Your task to perform on an android device: allow notifications from all sites in the chrome app Image 0: 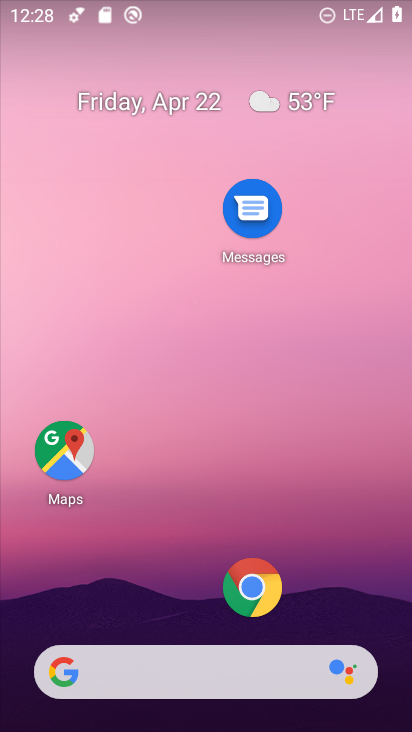
Step 0: drag from (192, 602) to (268, 205)
Your task to perform on an android device: allow notifications from all sites in the chrome app Image 1: 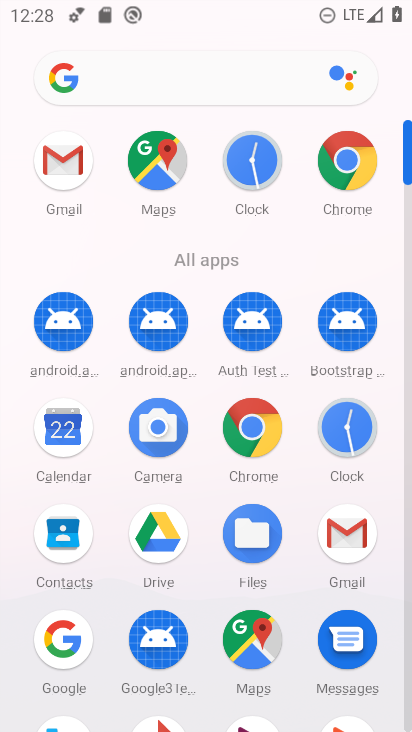
Step 1: click (350, 155)
Your task to perform on an android device: allow notifications from all sites in the chrome app Image 2: 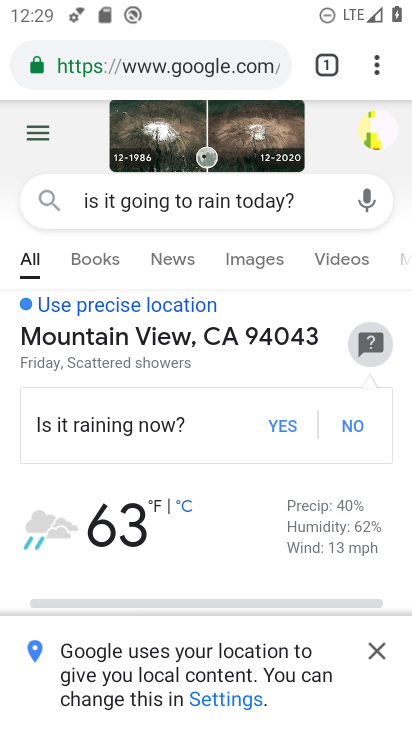
Step 2: click (374, 60)
Your task to perform on an android device: allow notifications from all sites in the chrome app Image 3: 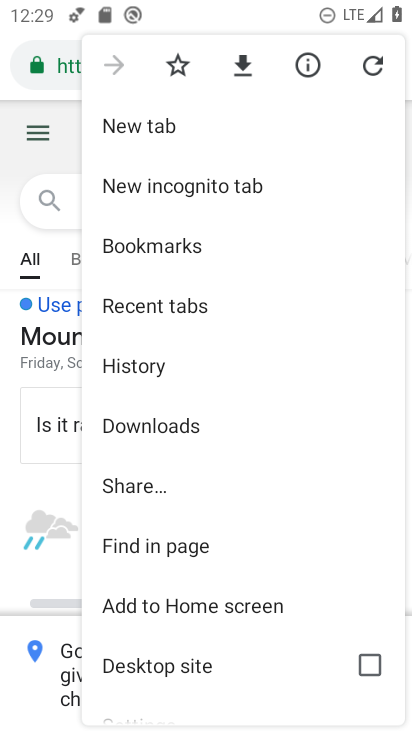
Step 3: drag from (194, 554) to (280, 228)
Your task to perform on an android device: allow notifications from all sites in the chrome app Image 4: 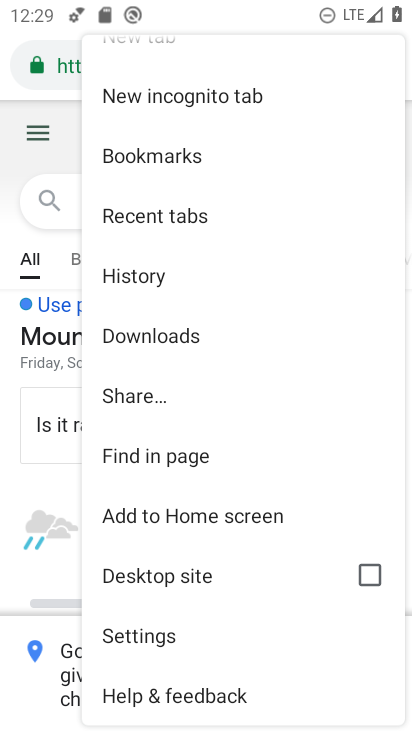
Step 4: click (146, 643)
Your task to perform on an android device: allow notifications from all sites in the chrome app Image 5: 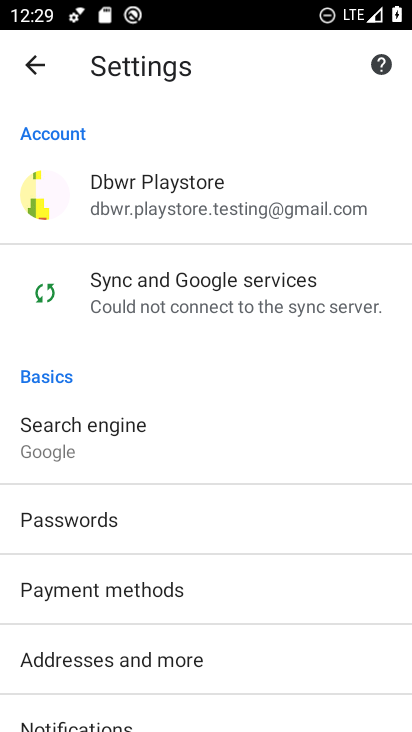
Step 5: drag from (153, 587) to (238, 200)
Your task to perform on an android device: allow notifications from all sites in the chrome app Image 6: 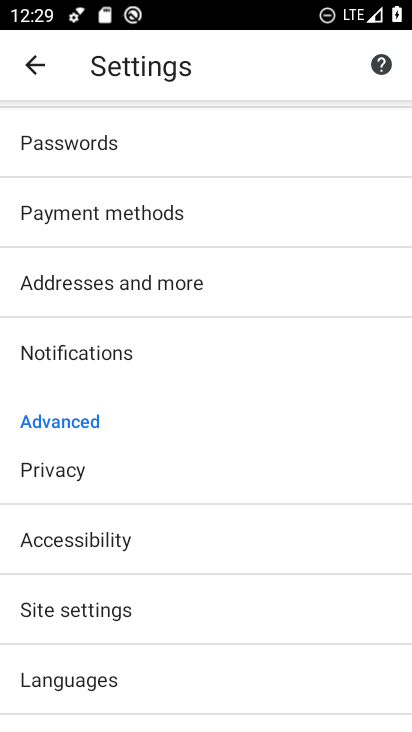
Step 6: click (124, 356)
Your task to perform on an android device: allow notifications from all sites in the chrome app Image 7: 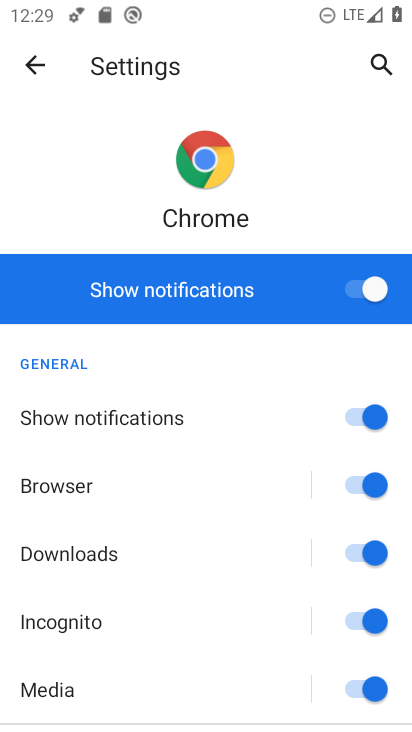
Step 7: task complete